Your task to perform on an android device: turn on translation in the chrome app Image 0: 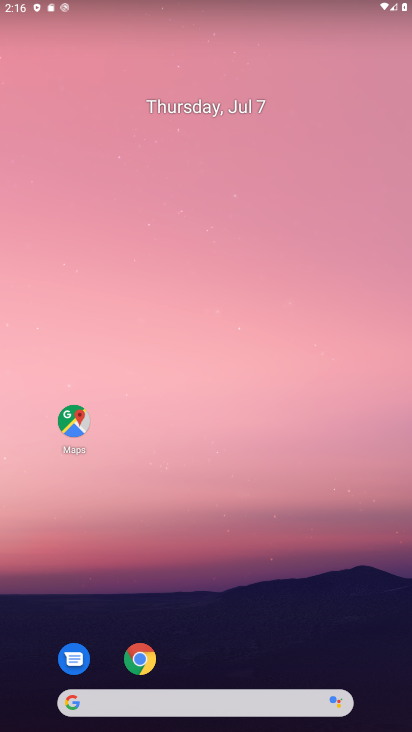
Step 0: click (139, 654)
Your task to perform on an android device: turn on translation in the chrome app Image 1: 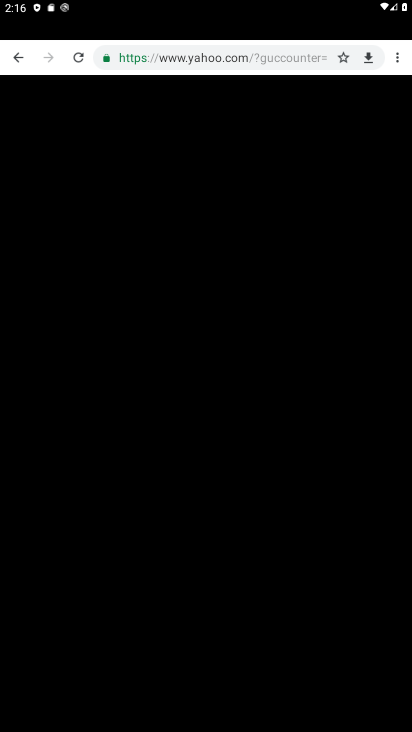
Step 1: click (396, 58)
Your task to perform on an android device: turn on translation in the chrome app Image 2: 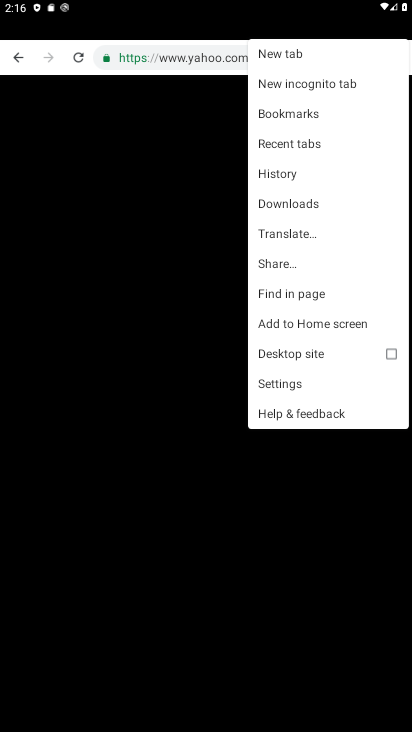
Step 2: click (303, 382)
Your task to perform on an android device: turn on translation in the chrome app Image 3: 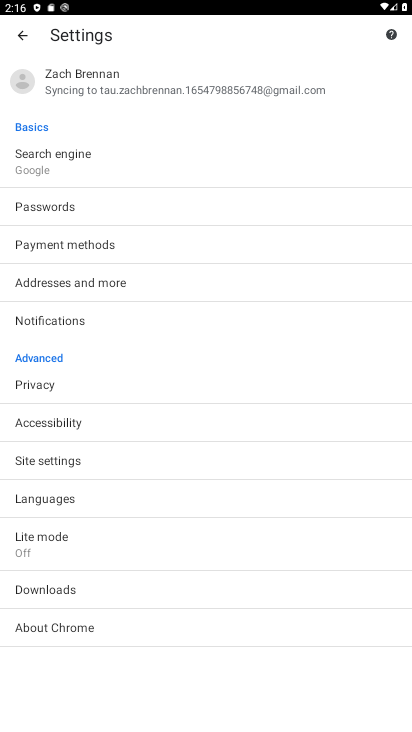
Step 3: click (81, 500)
Your task to perform on an android device: turn on translation in the chrome app Image 4: 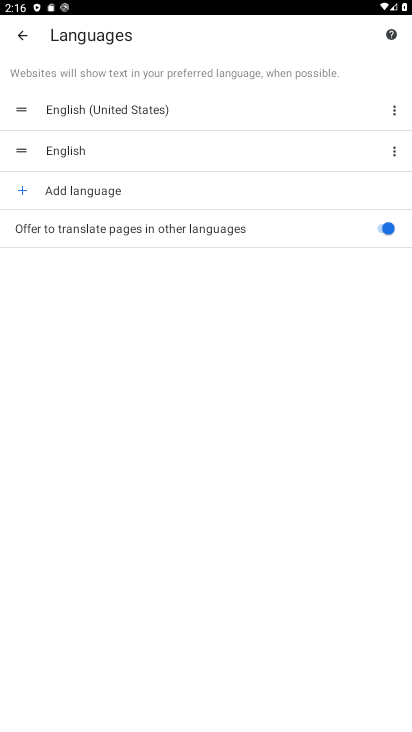
Step 4: task complete